Your task to perform on an android device: open a new tab in the chrome app Image 0: 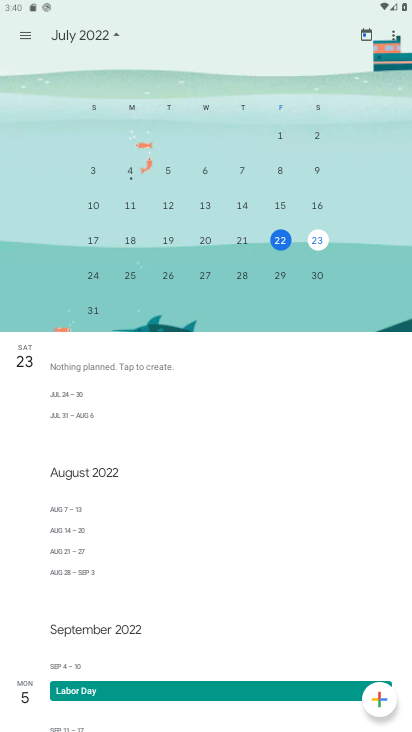
Step 0: press home button
Your task to perform on an android device: open a new tab in the chrome app Image 1: 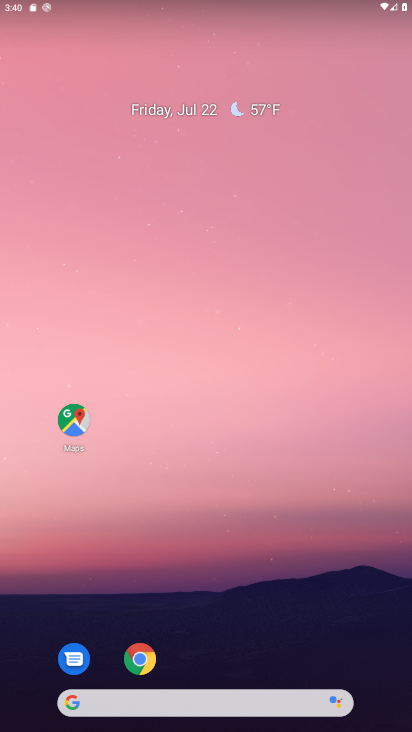
Step 1: click (136, 661)
Your task to perform on an android device: open a new tab in the chrome app Image 2: 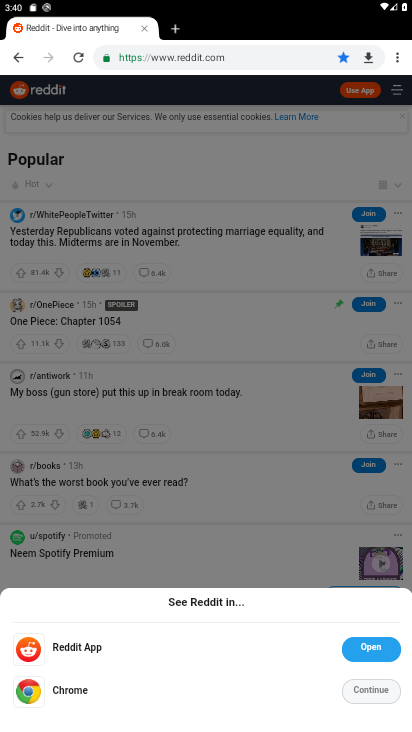
Step 2: click (399, 51)
Your task to perform on an android device: open a new tab in the chrome app Image 3: 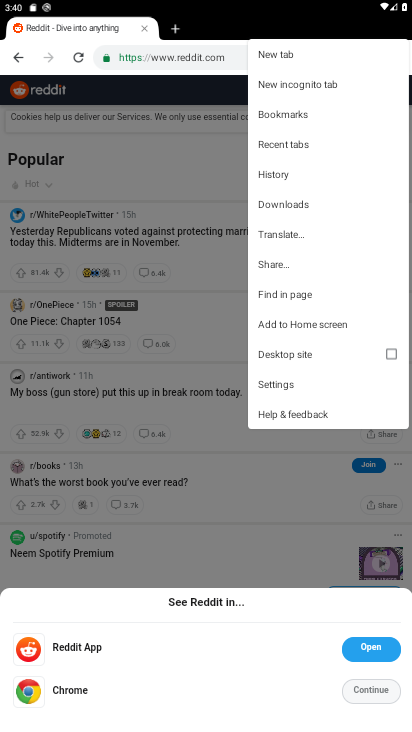
Step 3: click (294, 60)
Your task to perform on an android device: open a new tab in the chrome app Image 4: 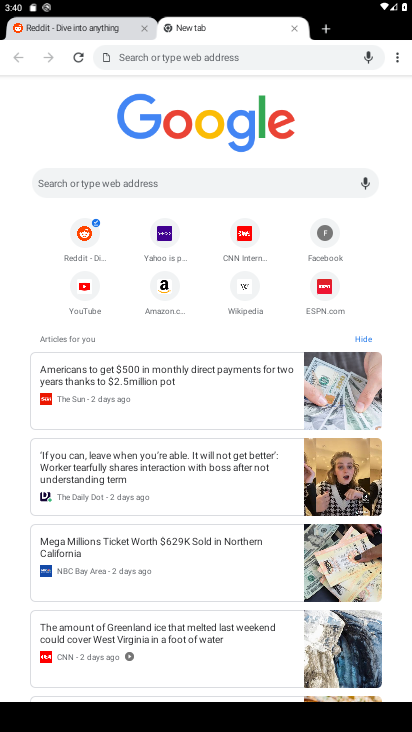
Step 4: task complete